Your task to perform on an android device: Open the map Image 0: 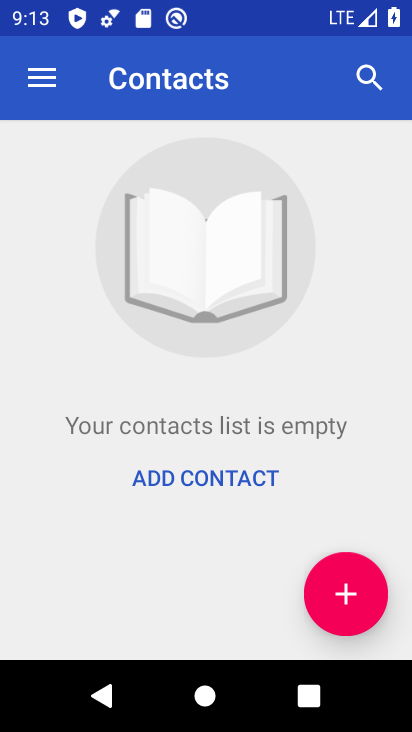
Step 0: press home button
Your task to perform on an android device: Open the map Image 1: 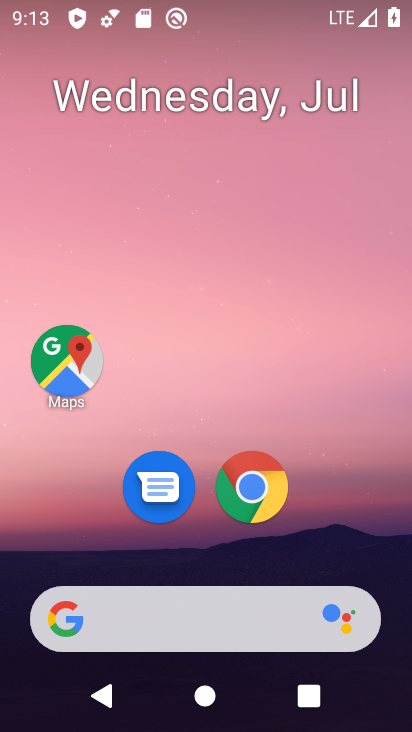
Step 1: drag from (189, 589) to (94, 41)
Your task to perform on an android device: Open the map Image 2: 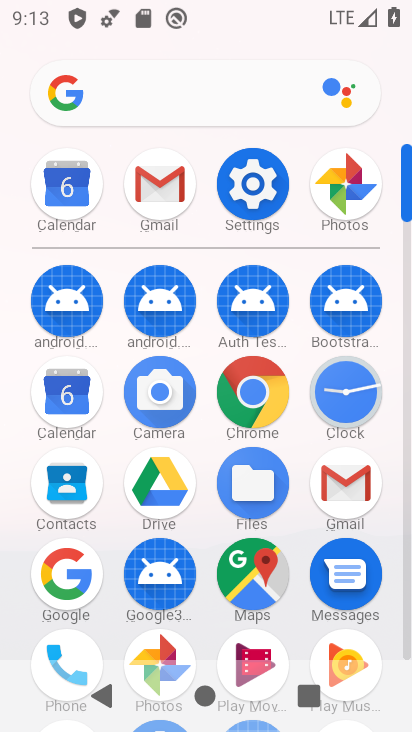
Step 2: click (254, 571)
Your task to perform on an android device: Open the map Image 3: 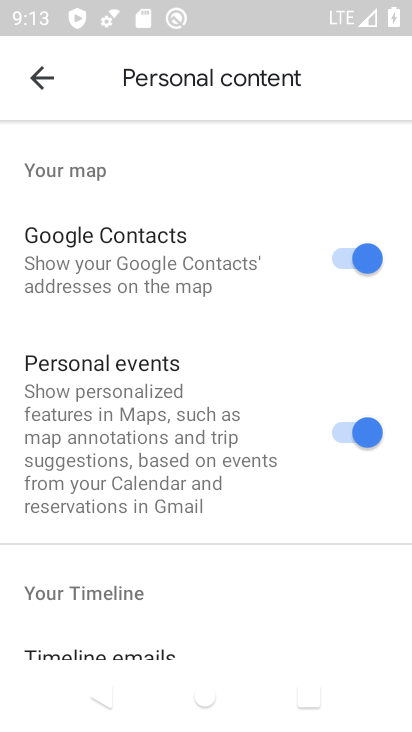
Step 3: click (32, 76)
Your task to perform on an android device: Open the map Image 4: 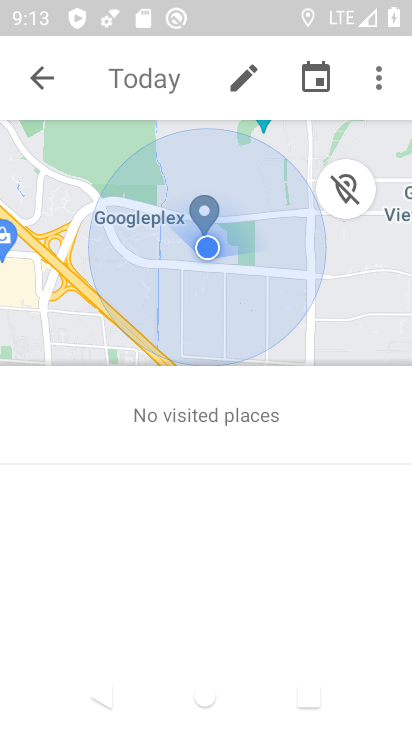
Step 4: click (32, 76)
Your task to perform on an android device: Open the map Image 5: 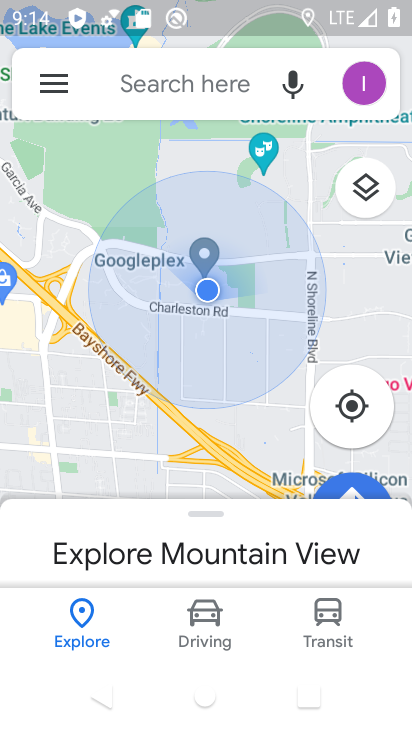
Step 5: task complete